Your task to perform on an android device: find photos in the google photos app Image 0: 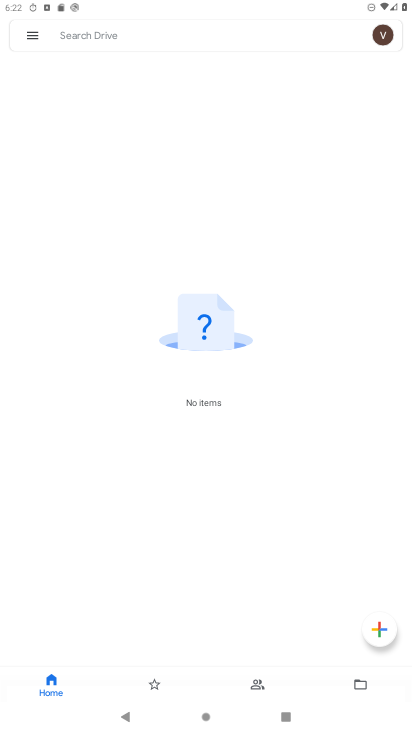
Step 0: press home button
Your task to perform on an android device: find photos in the google photos app Image 1: 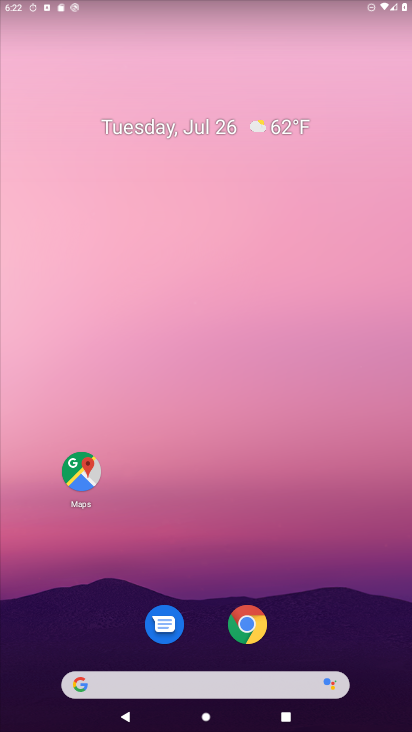
Step 1: drag from (295, 697) to (410, 0)
Your task to perform on an android device: find photos in the google photos app Image 2: 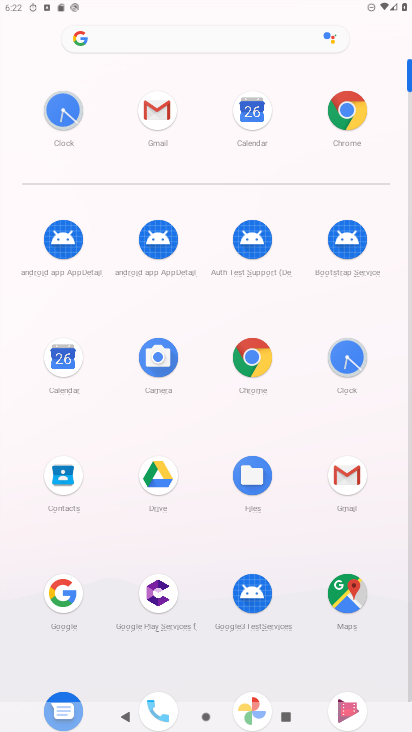
Step 2: drag from (287, 627) to (323, 281)
Your task to perform on an android device: find photos in the google photos app Image 3: 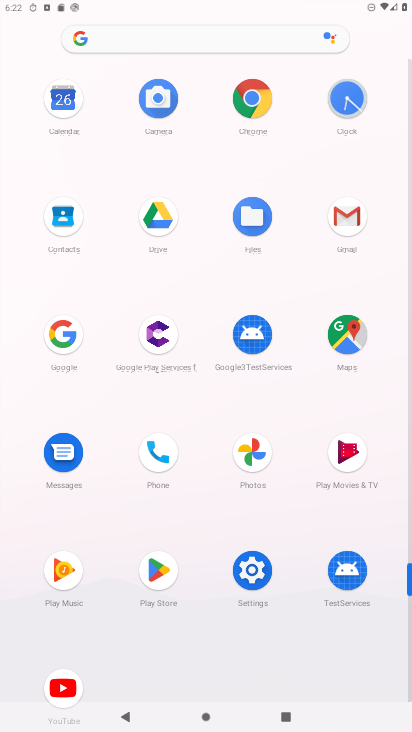
Step 3: click (259, 458)
Your task to perform on an android device: find photos in the google photos app Image 4: 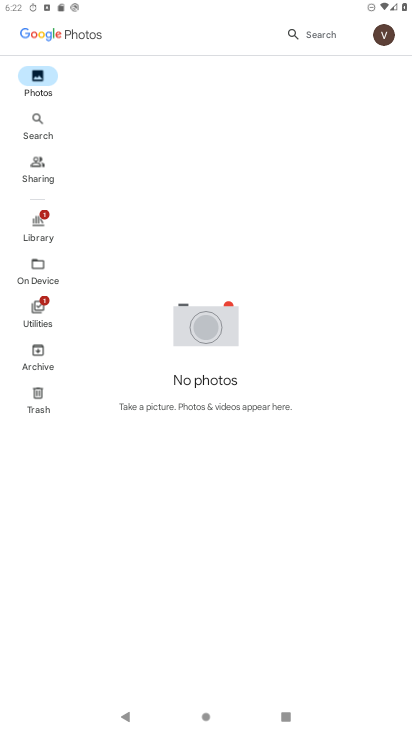
Step 4: click (40, 78)
Your task to perform on an android device: find photos in the google photos app Image 5: 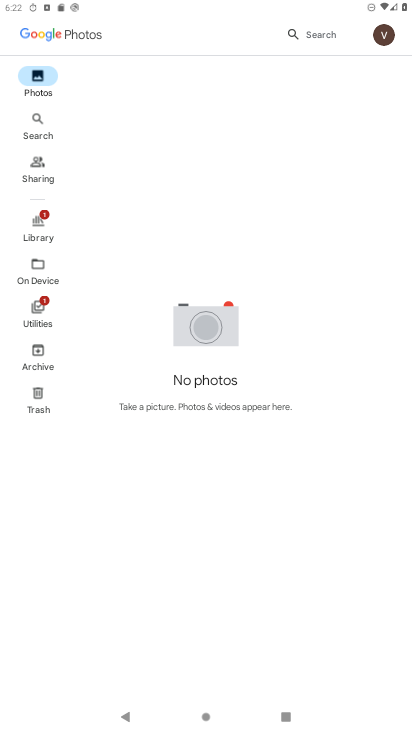
Step 5: task complete